Your task to perform on an android device: open the mobile data screen to see how much data has been used Image 0: 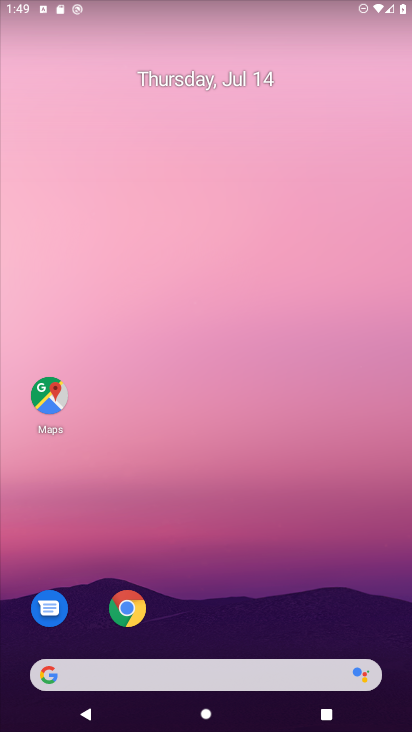
Step 0: drag from (389, 640) to (342, 95)
Your task to perform on an android device: open the mobile data screen to see how much data has been used Image 1: 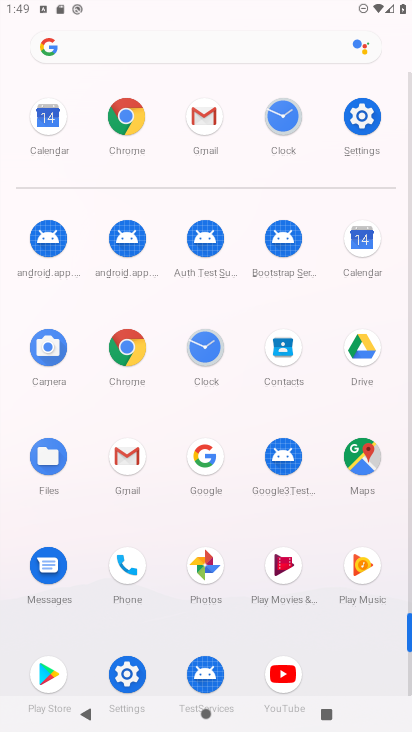
Step 1: click (126, 672)
Your task to perform on an android device: open the mobile data screen to see how much data has been used Image 2: 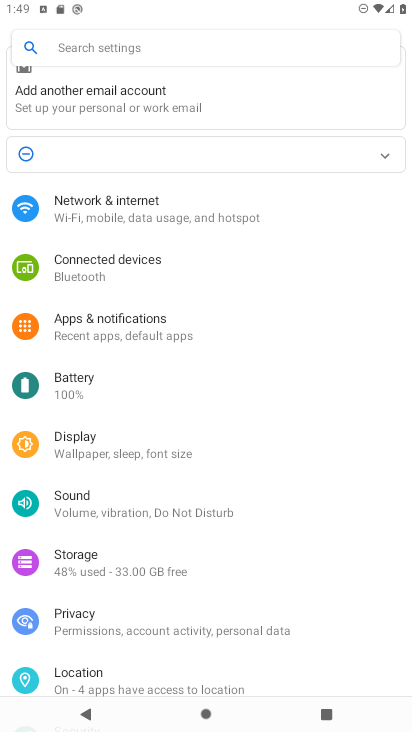
Step 2: click (93, 201)
Your task to perform on an android device: open the mobile data screen to see how much data has been used Image 3: 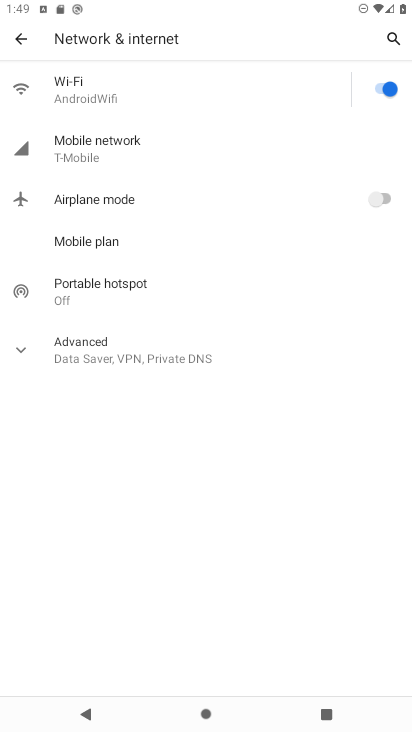
Step 3: click (83, 149)
Your task to perform on an android device: open the mobile data screen to see how much data has been used Image 4: 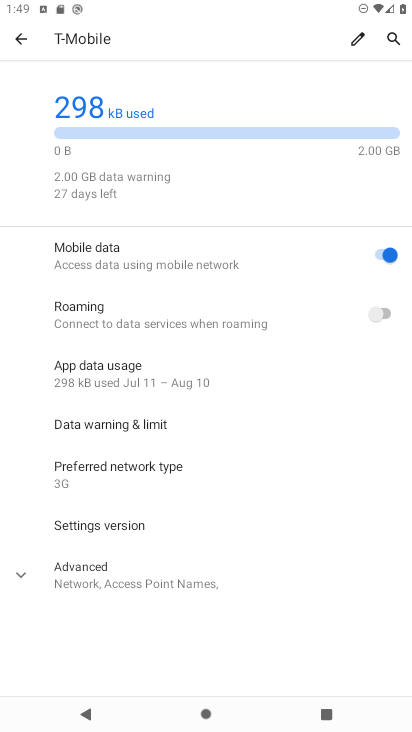
Step 4: task complete